Your task to perform on an android device: Open CNN.com Image 0: 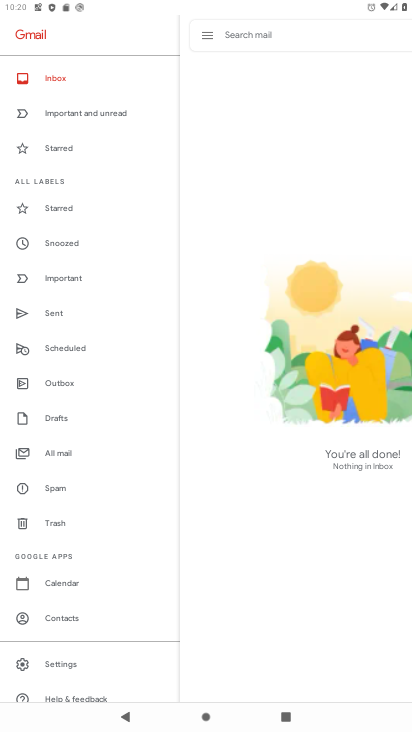
Step 0: press home button
Your task to perform on an android device: Open CNN.com Image 1: 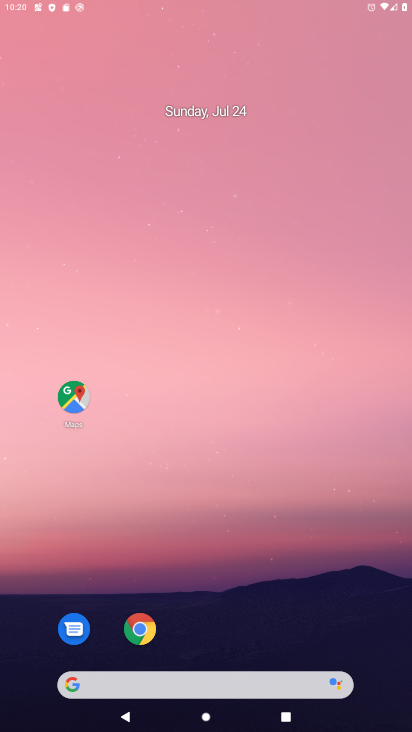
Step 1: drag from (154, 609) to (177, 152)
Your task to perform on an android device: Open CNN.com Image 2: 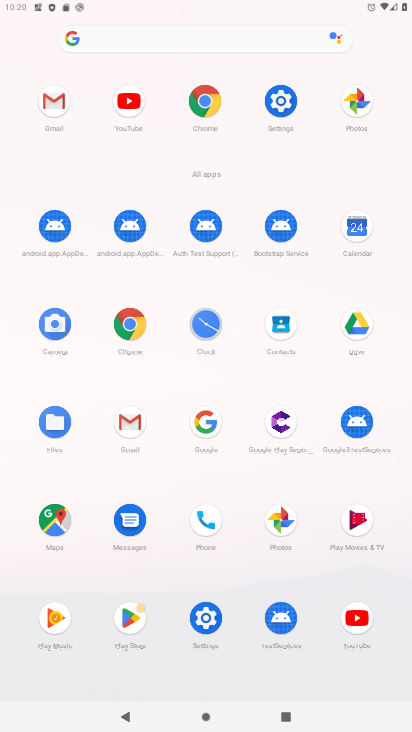
Step 2: click (202, 30)
Your task to perform on an android device: Open CNN.com Image 3: 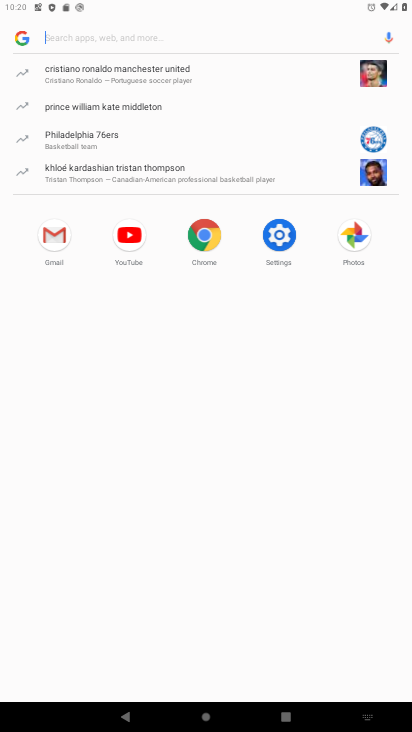
Step 3: type "CNN.com"
Your task to perform on an android device: Open CNN.com Image 4: 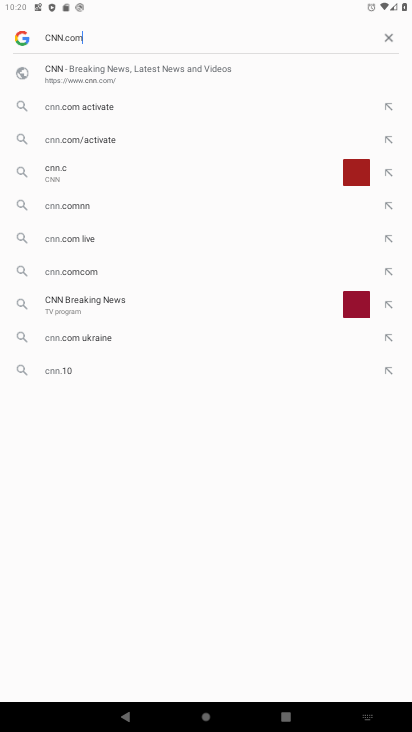
Step 4: type ""
Your task to perform on an android device: Open CNN.com Image 5: 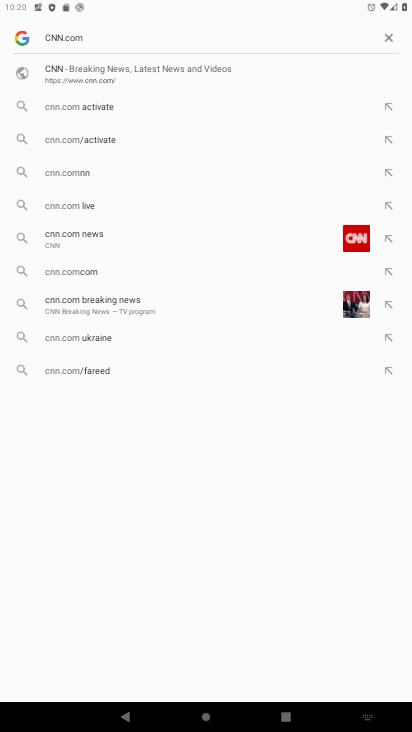
Step 5: click (59, 82)
Your task to perform on an android device: Open CNN.com Image 6: 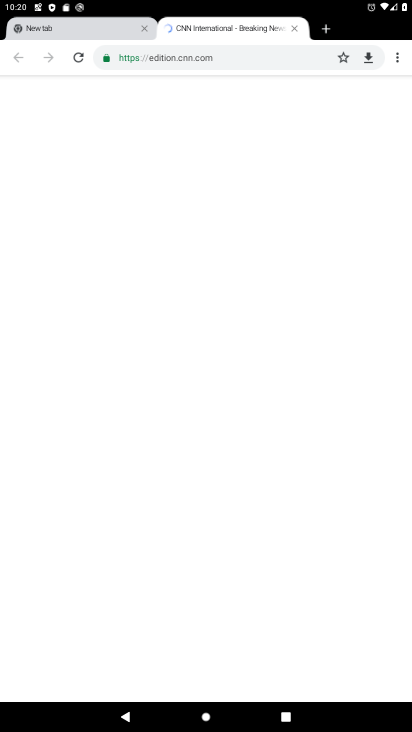
Step 6: task complete